Your task to perform on an android device: Go to Reddit.com Image 0: 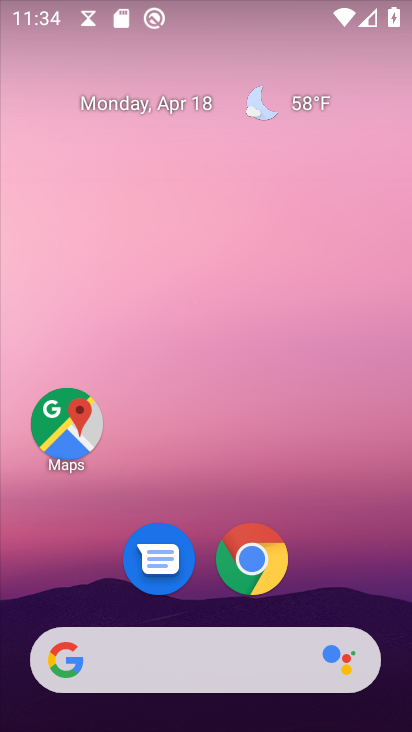
Step 0: click (257, 550)
Your task to perform on an android device: Go to Reddit.com Image 1: 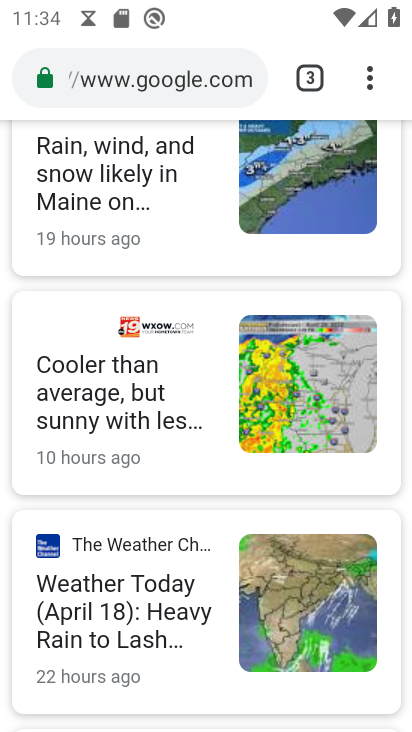
Step 1: click (323, 90)
Your task to perform on an android device: Go to Reddit.com Image 2: 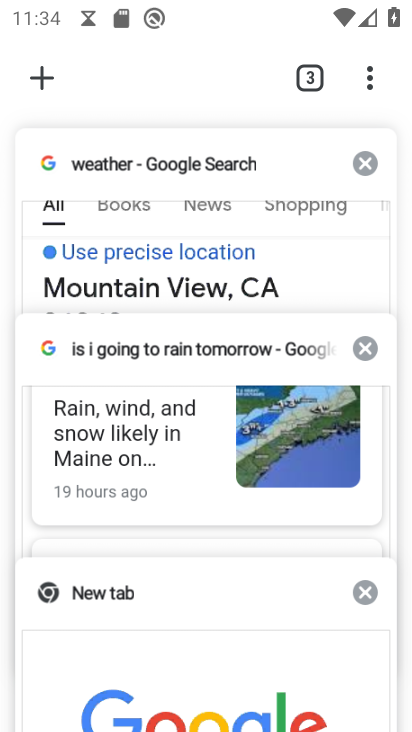
Step 2: click (203, 657)
Your task to perform on an android device: Go to Reddit.com Image 3: 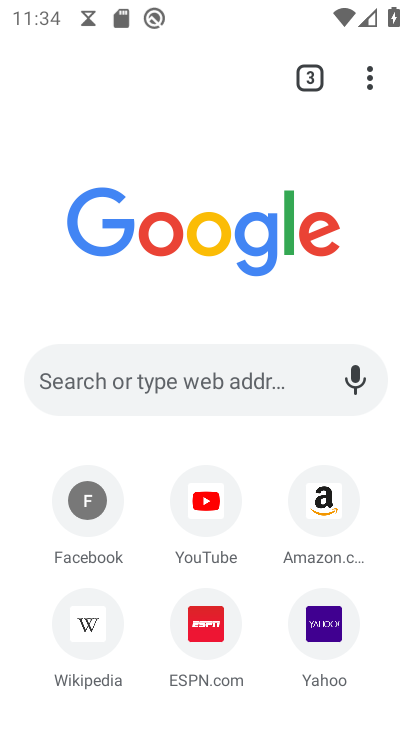
Step 3: click (142, 381)
Your task to perform on an android device: Go to Reddit.com Image 4: 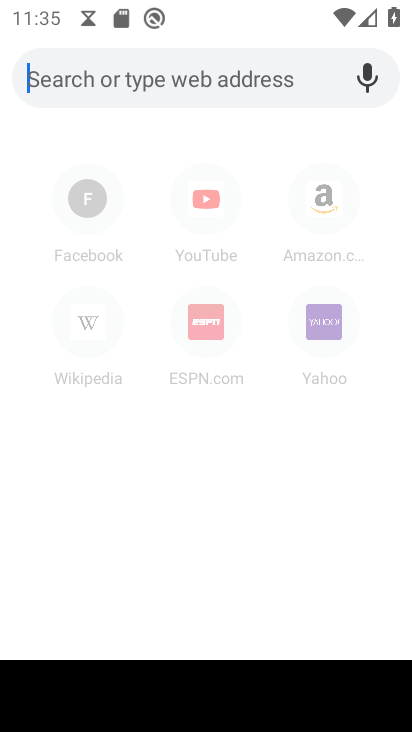
Step 4: type "reddit.com"
Your task to perform on an android device: Go to Reddit.com Image 5: 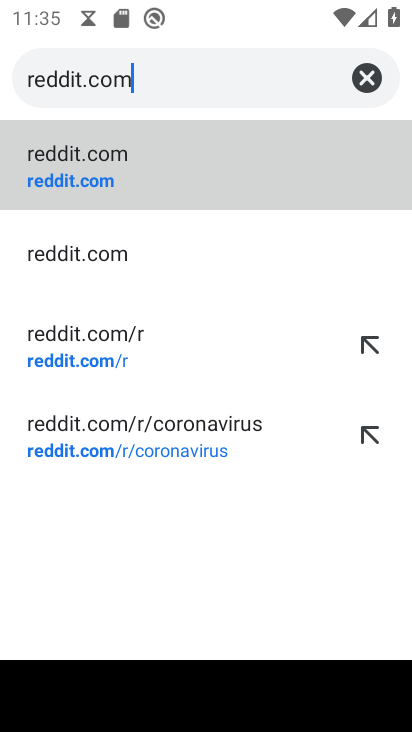
Step 5: click (67, 165)
Your task to perform on an android device: Go to Reddit.com Image 6: 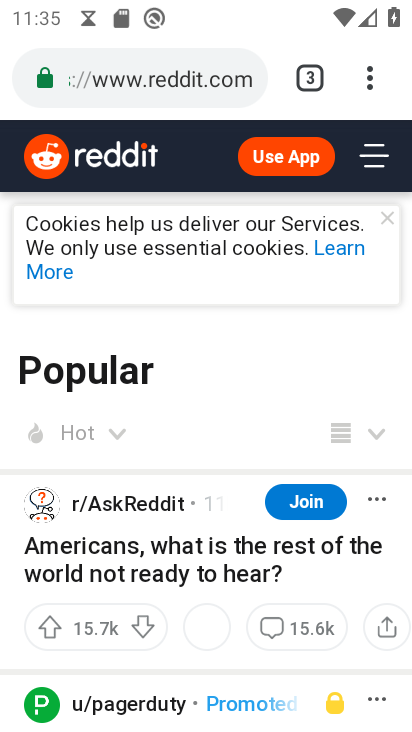
Step 6: drag from (305, 646) to (276, 347)
Your task to perform on an android device: Go to Reddit.com Image 7: 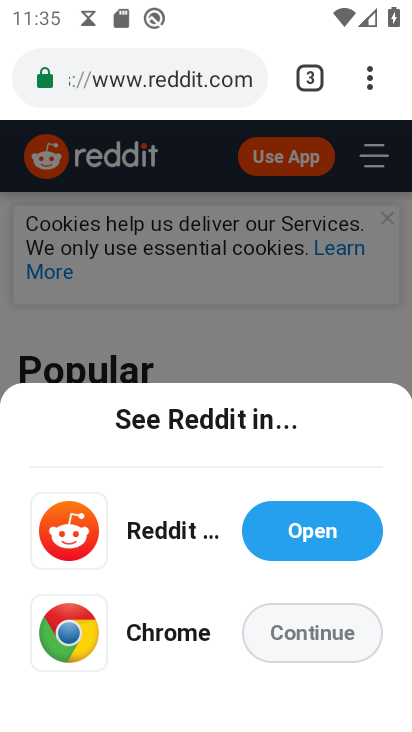
Step 7: click (276, 347)
Your task to perform on an android device: Go to Reddit.com Image 8: 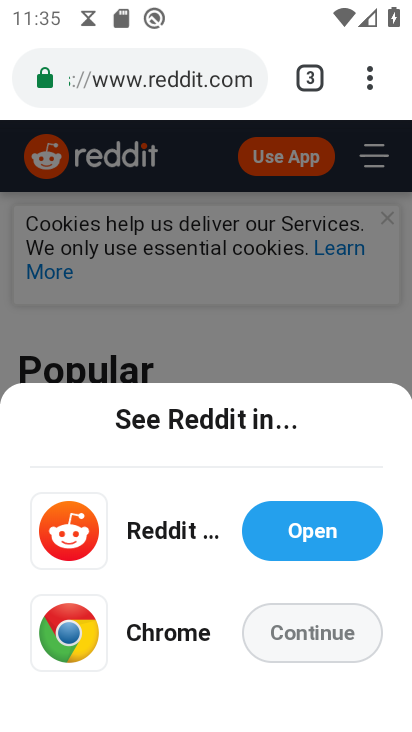
Step 8: click (302, 634)
Your task to perform on an android device: Go to Reddit.com Image 9: 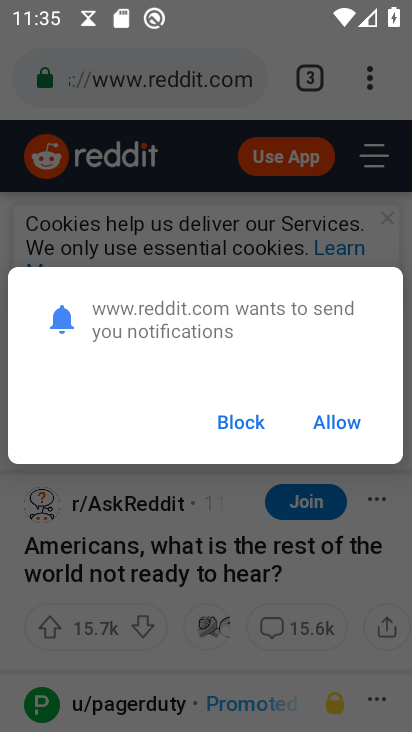
Step 9: drag from (302, 634) to (275, 382)
Your task to perform on an android device: Go to Reddit.com Image 10: 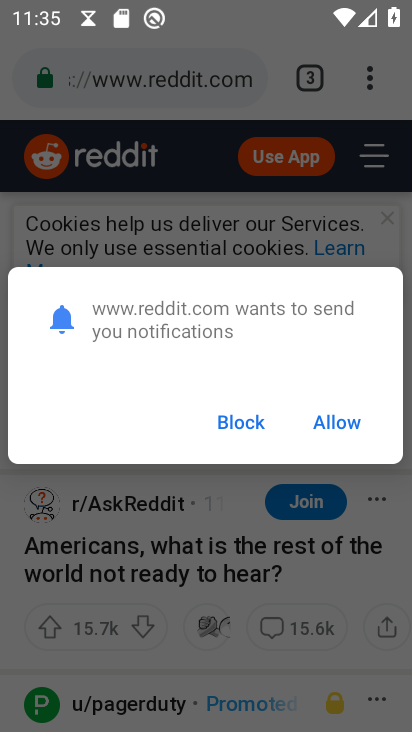
Step 10: click (247, 416)
Your task to perform on an android device: Go to Reddit.com Image 11: 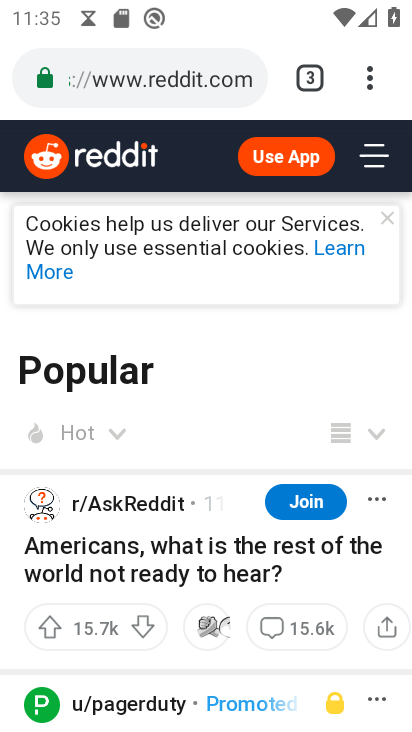
Step 11: task complete